Your task to perform on an android device: Go to privacy settings Image 0: 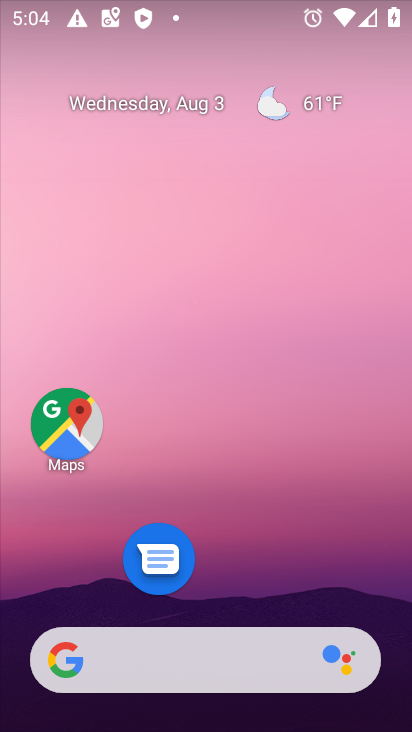
Step 0: drag from (208, 627) to (198, 138)
Your task to perform on an android device: Go to privacy settings Image 1: 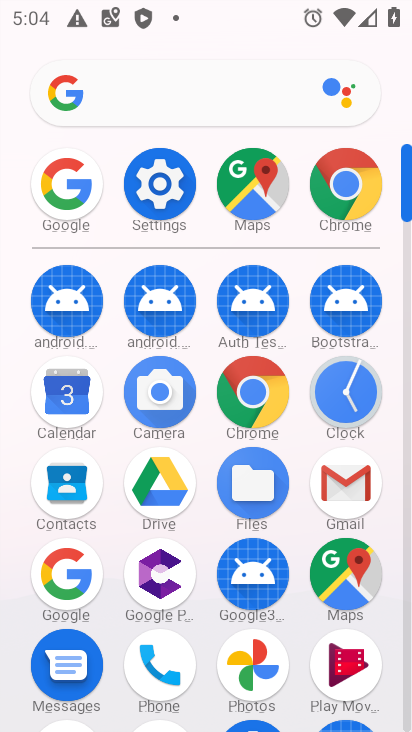
Step 1: click (156, 181)
Your task to perform on an android device: Go to privacy settings Image 2: 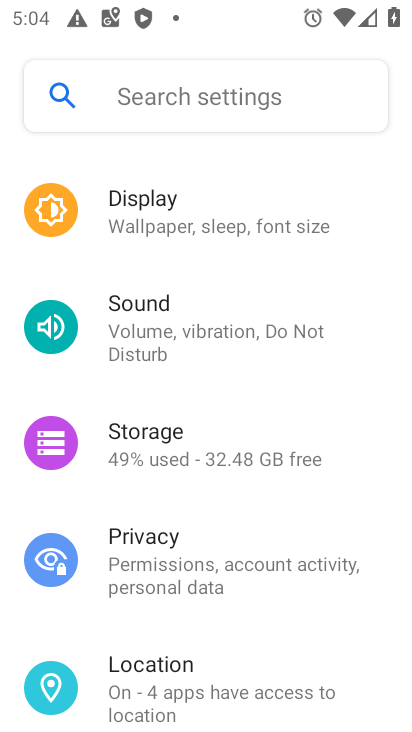
Step 2: click (161, 548)
Your task to perform on an android device: Go to privacy settings Image 3: 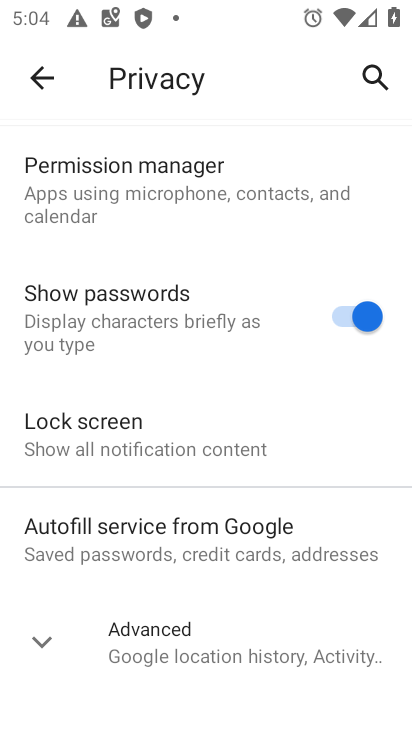
Step 3: click (133, 627)
Your task to perform on an android device: Go to privacy settings Image 4: 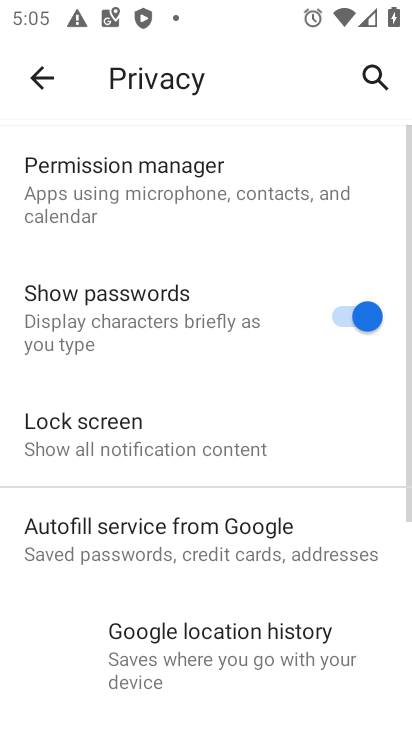
Step 4: task complete